Your task to perform on an android device: add a contact in the contacts app Image 0: 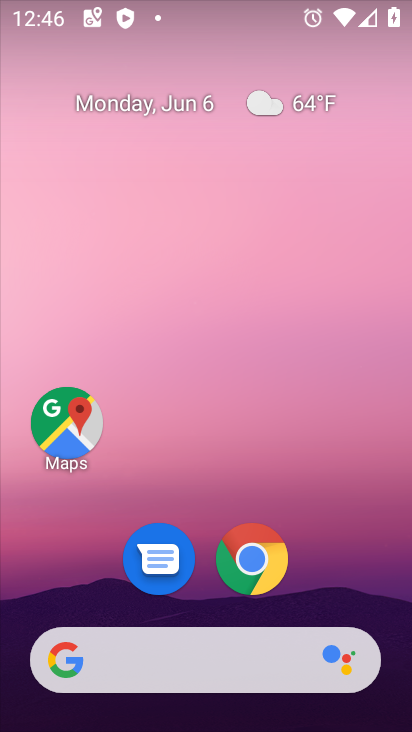
Step 0: drag from (240, 692) to (130, 186)
Your task to perform on an android device: add a contact in the contacts app Image 1: 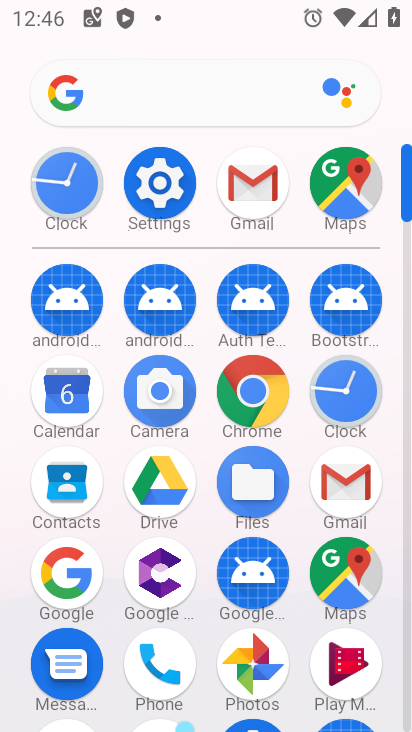
Step 1: click (179, 668)
Your task to perform on an android device: add a contact in the contacts app Image 2: 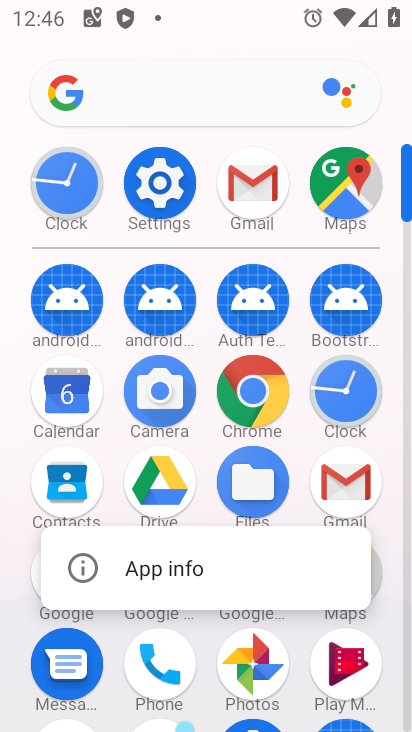
Step 2: click (167, 678)
Your task to perform on an android device: add a contact in the contacts app Image 3: 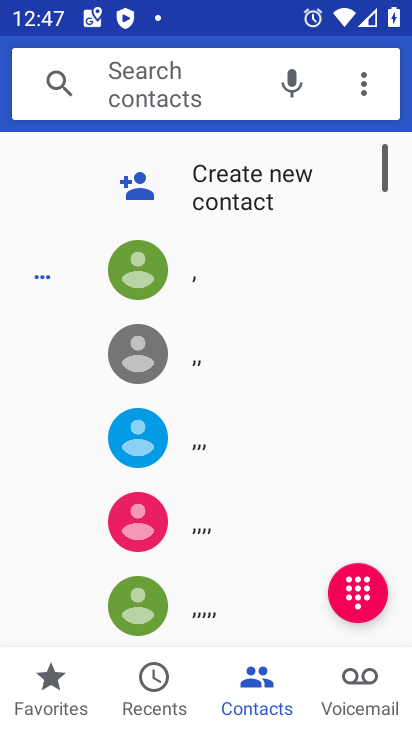
Step 3: click (231, 192)
Your task to perform on an android device: add a contact in the contacts app Image 4: 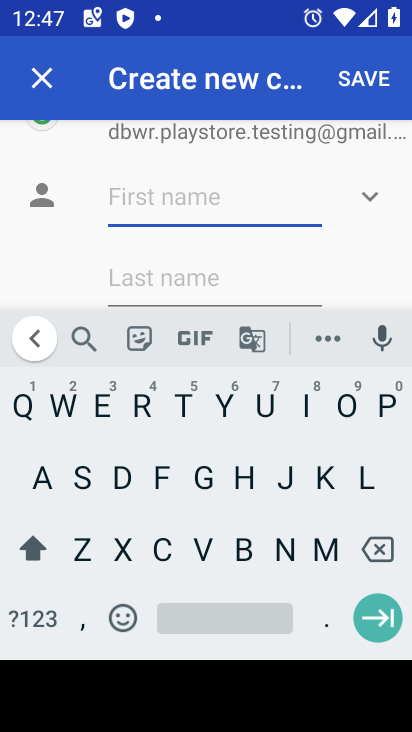
Step 4: click (164, 215)
Your task to perform on an android device: add a contact in the contacts app Image 5: 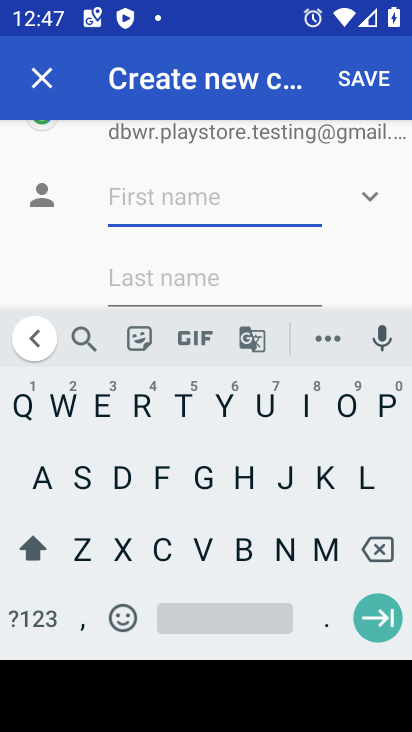
Step 5: click (222, 489)
Your task to perform on an android device: add a contact in the contacts app Image 6: 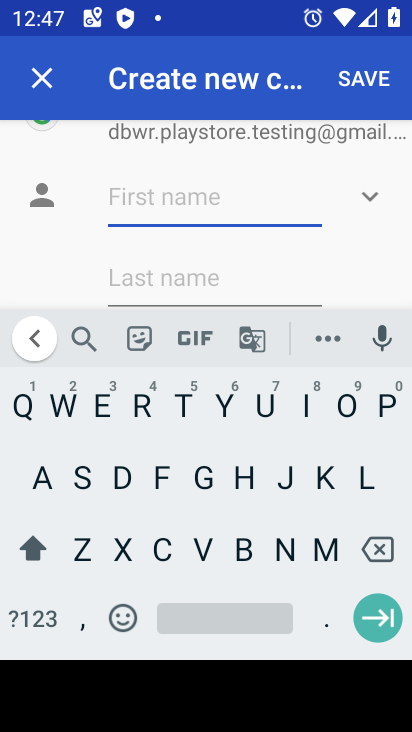
Step 6: click (134, 488)
Your task to perform on an android device: add a contact in the contacts app Image 7: 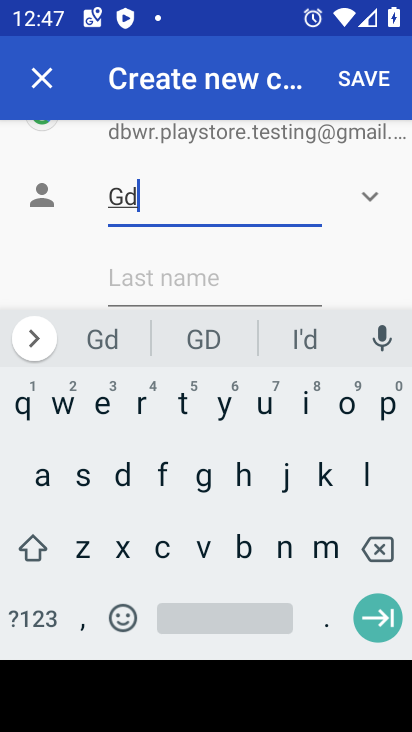
Step 7: click (85, 423)
Your task to perform on an android device: add a contact in the contacts app Image 8: 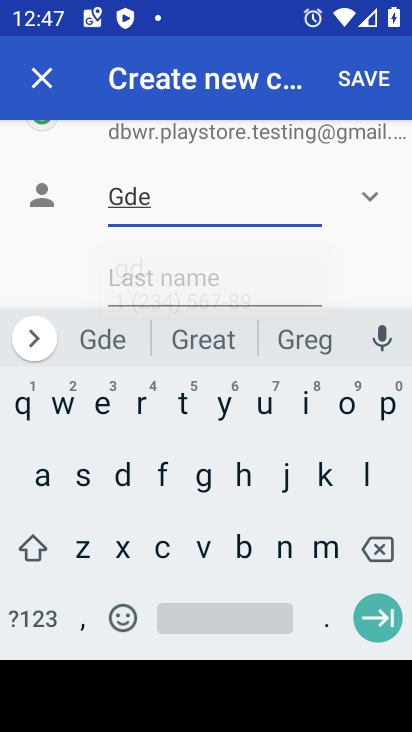
Step 8: drag from (216, 298) to (205, 168)
Your task to perform on an android device: add a contact in the contacts app Image 9: 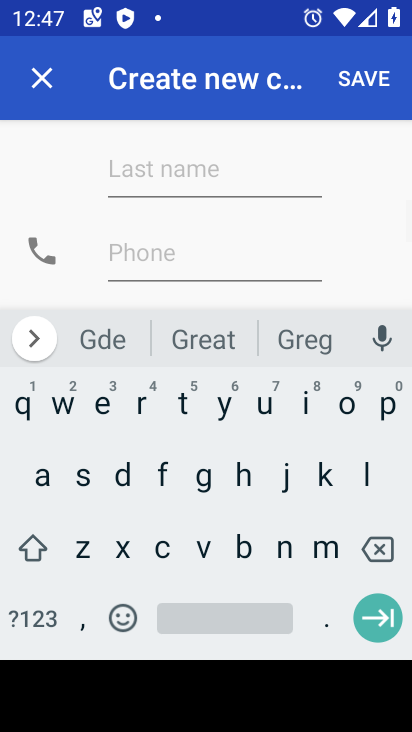
Step 9: click (161, 259)
Your task to perform on an android device: add a contact in the contacts app Image 10: 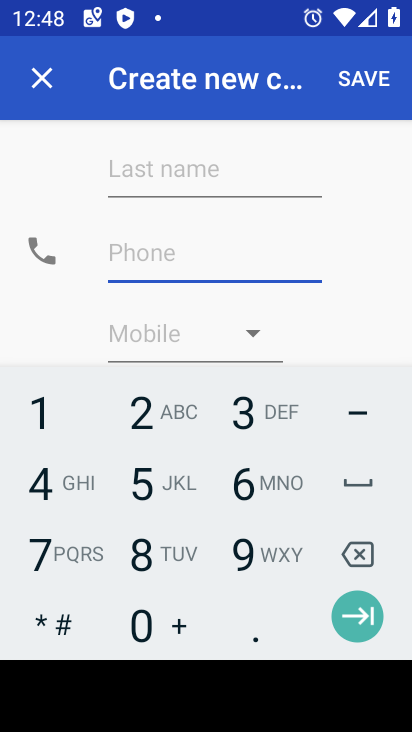
Step 10: click (245, 556)
Your task to perform on an android device: add a contact in the contacts app Image 11: 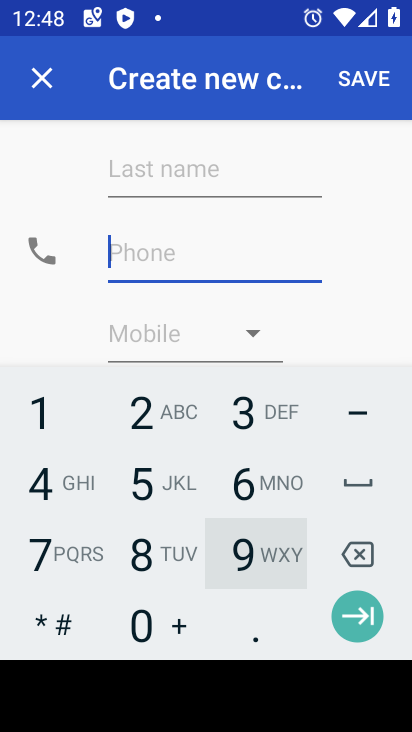
Step 11: click (150, 547)
Your task to perform on an android device: add a contact in the contacts app Image 12: 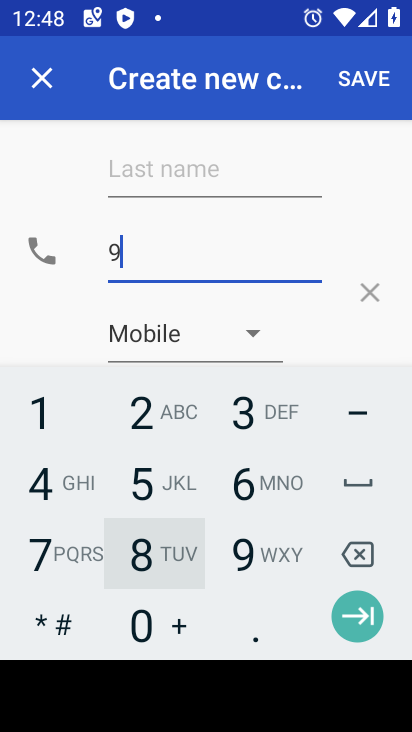
Step 12: click (122, 471)
Your task to perform on an android device: add a contact in the contacts app Image 13: 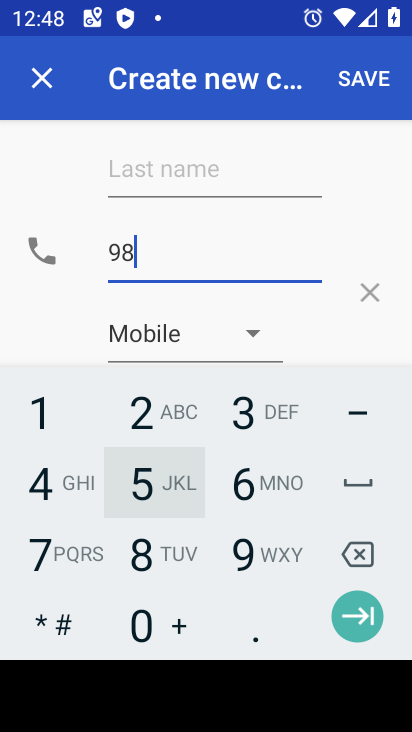
Step 13: click (55, 485)
Your task to perform on an android device: add a contact in the contacts app Image 14: 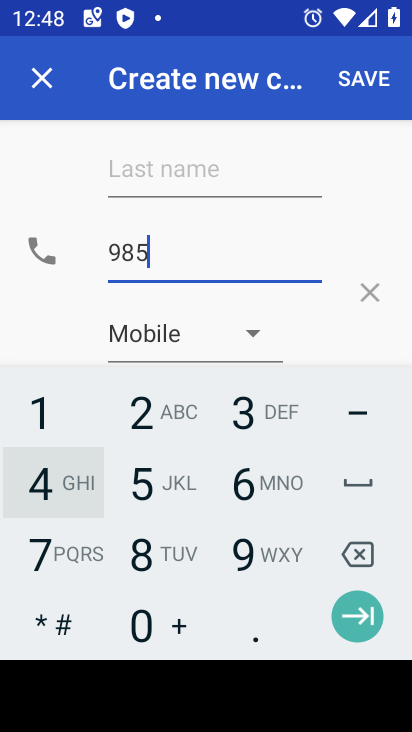
Step 14: click (140, 417)
Your task to perform on an android device: add a contact in the contacts app Image 15: 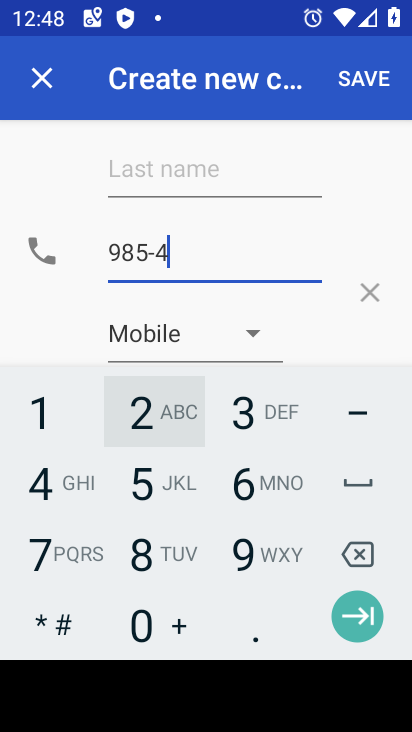
Step 15: click (178, 544)
Your task to perform on an android device: add a contact in the contacts app Image 16: 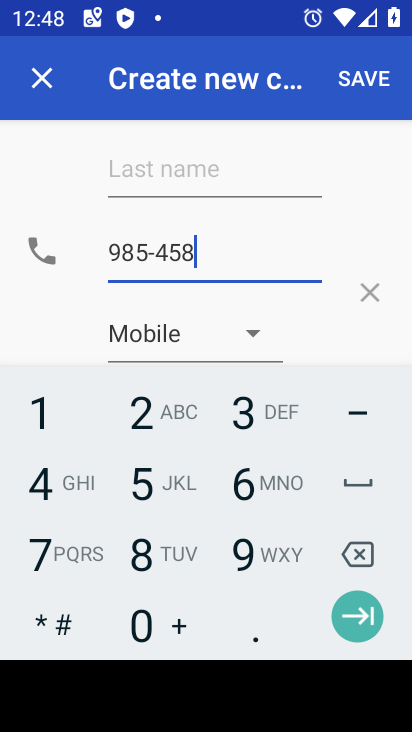
Step 16: click (55, 506)
Your task to perform on an android device: add a contact in the contacts app Image 17: 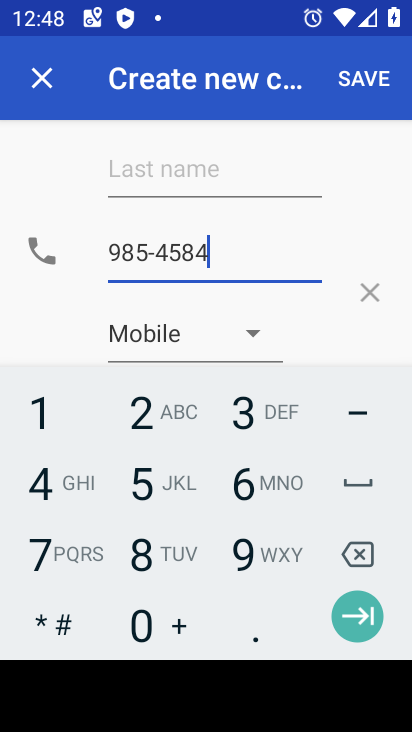
Step 17: click (64, 436)
Your task to perform on an android device: add a contact in the contacts app Image 18: 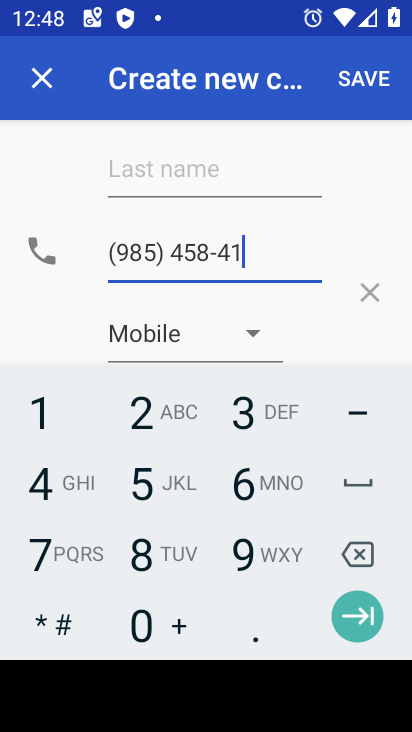
Step 18: click (359, 89)
Your task to perform on an android device: add a contact in the contacts app Image 19: 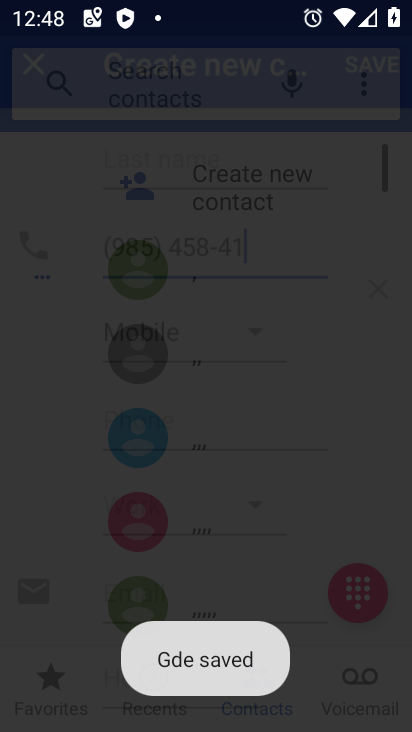
Step 19: task complete